Your task to perform on an android device: turn on javascript in the chrome app Image 0: 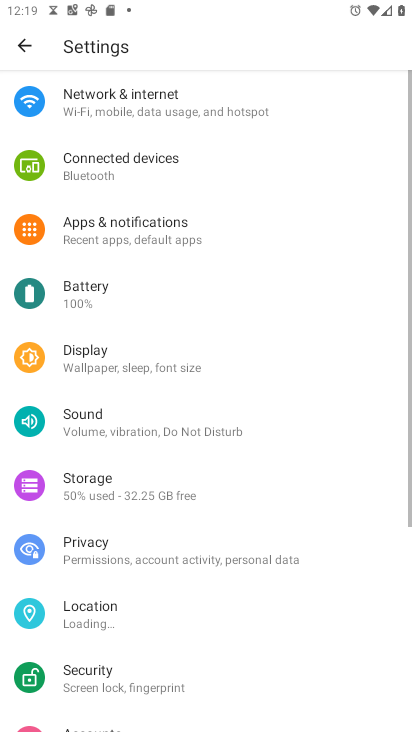
Step 0: press home button
Your task to perform on an android device: turn on javascript in the chrome app Image 1: 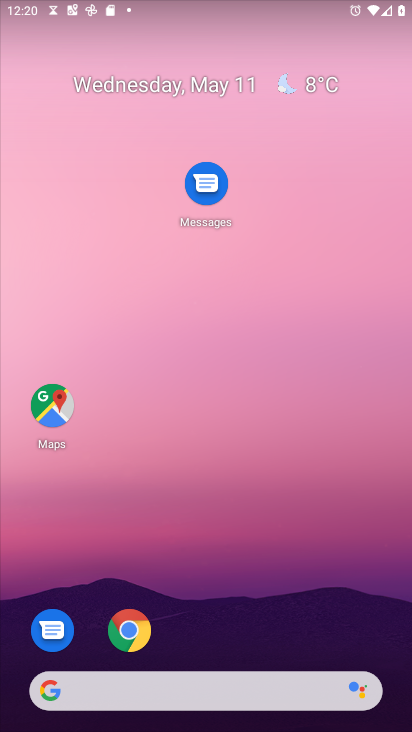
Step 1: click (142, 633)
Your task to perform on an android device: turn on javascript in the chrome app Image 2: 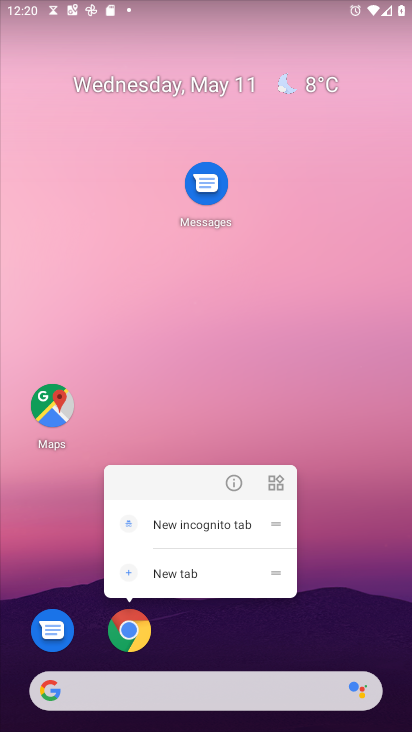
Step 2: click (142, 633)
Your task to perform on an android device: turn on javascript in the chrome app Image 3: 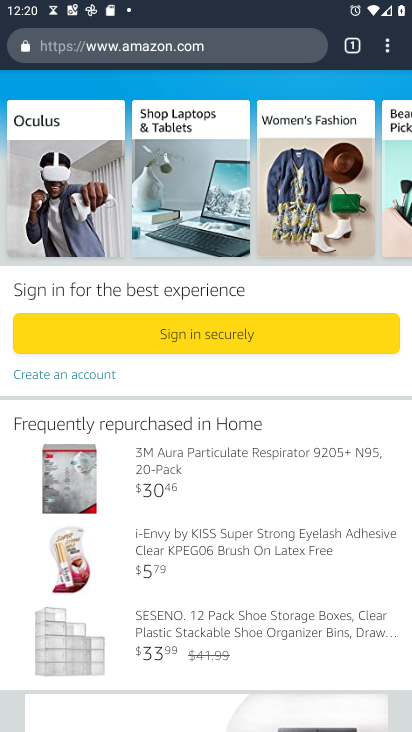
Step 3: click (392, 45)
Your task to perform on an android device: turn on javascript in the chrome app Image 4: 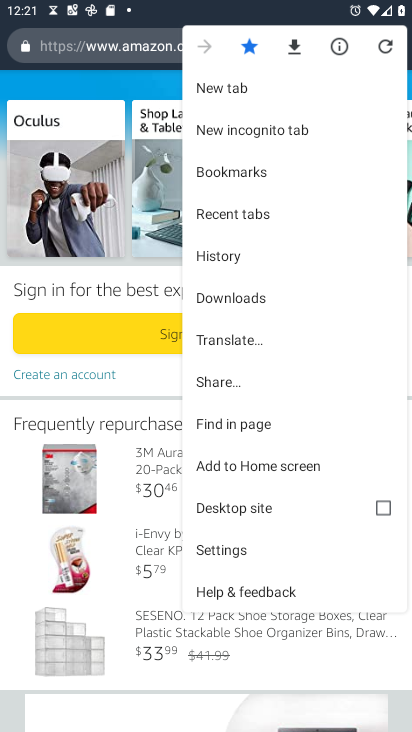
Step 4: press home button
Your task to perform on an android device: turn on javascript in the chrome app Image 5: 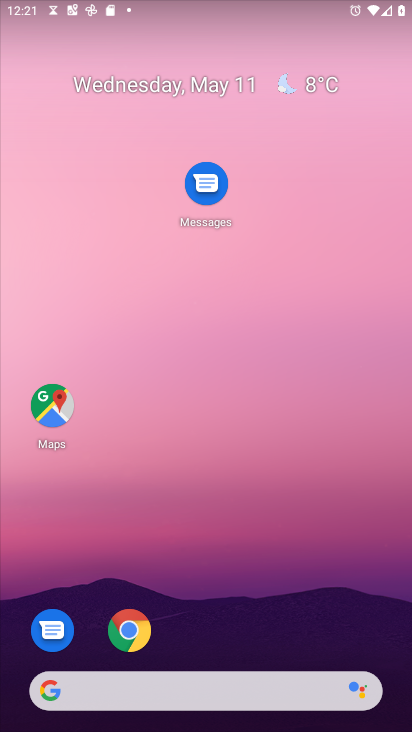
Step 5: click (126, 622)
Your task to perform on an android device: turn on javascript in the chrome app Image 6: 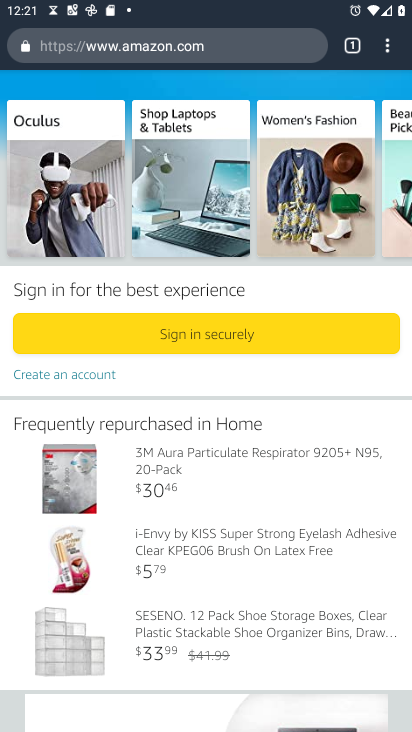
Step 6: click (349, 48)
Your task to perform on an android device: turn on javascript in the chrome app Image 7: 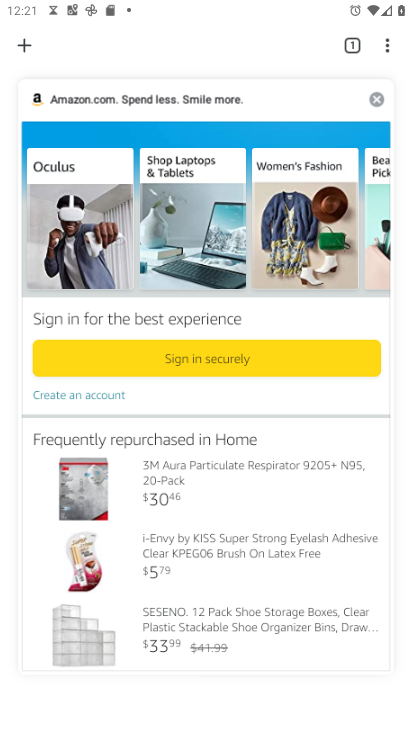
Step 7: click (374, 102)
Your task to perform on an android device: turn on javascript in the chrome app Image 8: 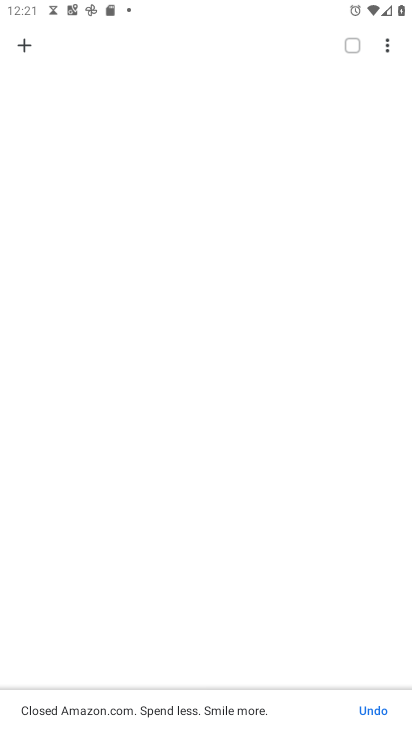
Step 8: click (389, 45)
Your task to perform on an android device: turn on javascript in the chrome app Image 9: 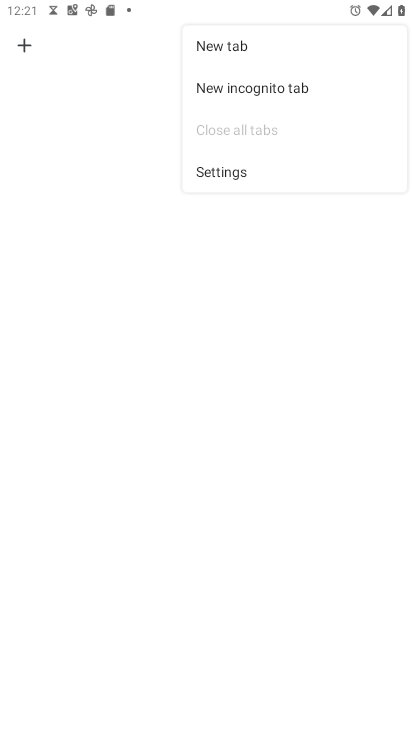
Step 9: click (270, 177)
Your task to perform on an android device: turn on javascript in the chrome app Image 10: 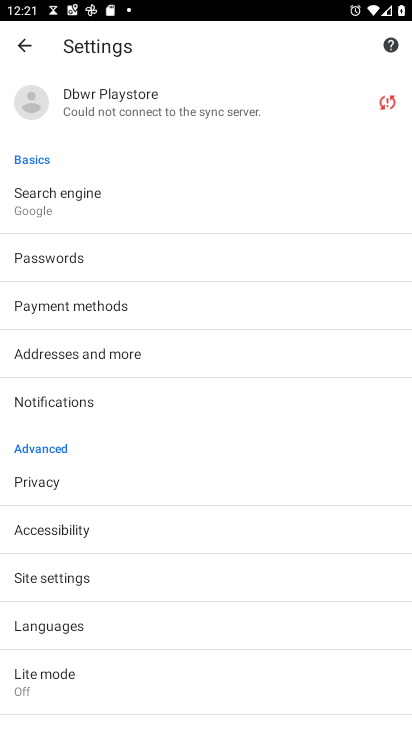
Step 10: click (94, 585)
Your task to perform on an android device: turn on javascript in the chrome app Image 11: 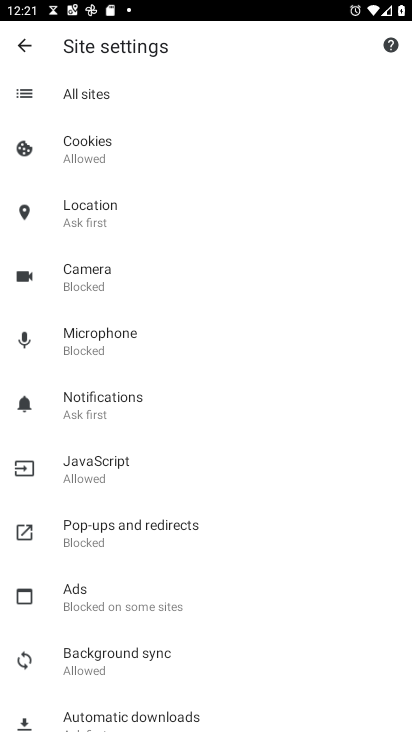
Step 11: drag from (163, 635) to (216, 314)
Your task to perform on an android device: turn on javascript in the chrome app Image 12: 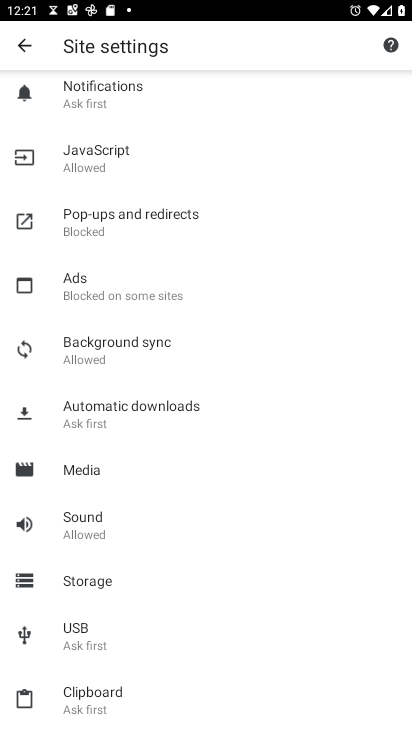
Step 12: click (203, 144)
Your task to perform on an android device: turn on javascript in the chrome app Image 13: 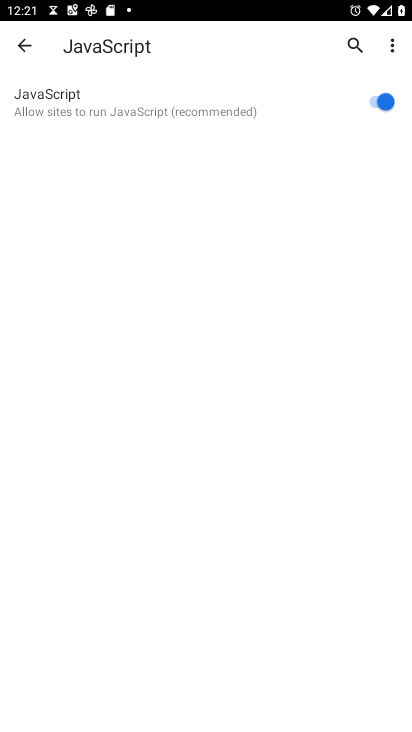
Step 13: task complete